Your task to perform on an android device: turn notification dots on Image 0: 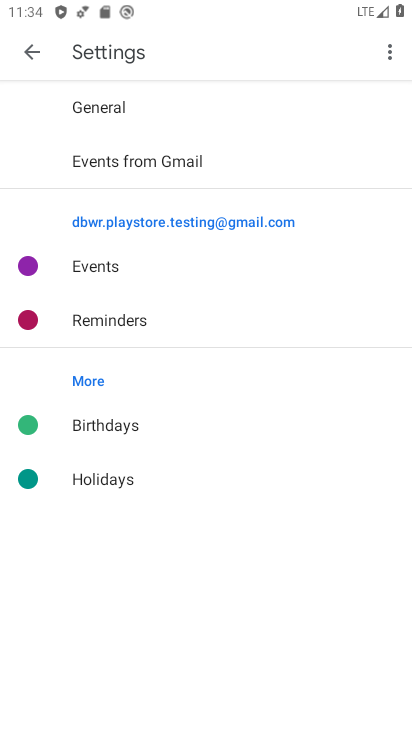
Step 0: press home button
Your task to perform on an android device: turn notification dots on Image 1: 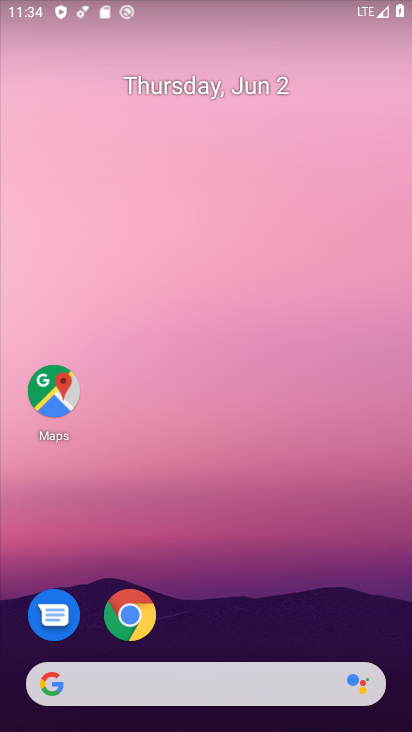
Step 1: drag from (330, 454) to (237, 36)
Your task to perform on an android device: turn notification dots on Image 2: 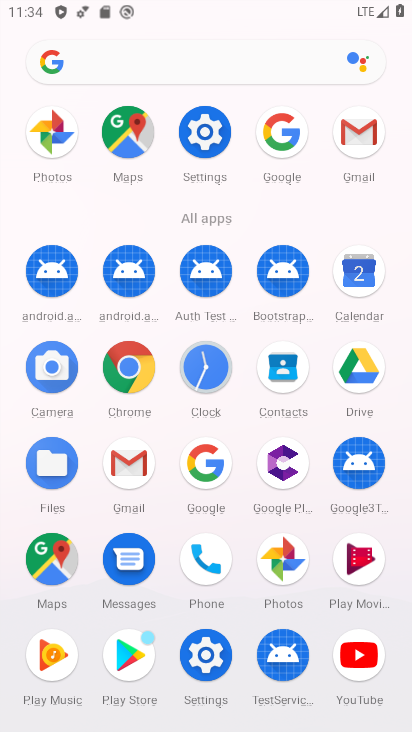
Step 2: click (208, 144)
Your task to perform on an android device: turn notification dots on Image 3: 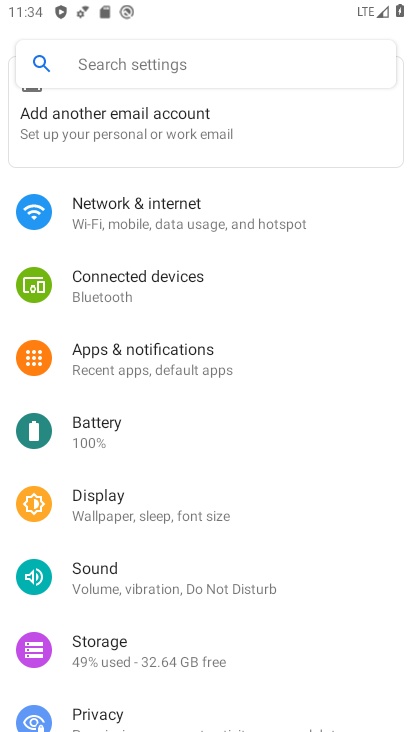
Step 3: click (174, 355)
Your task to perform on an android device: turn notification dots on Image 4: 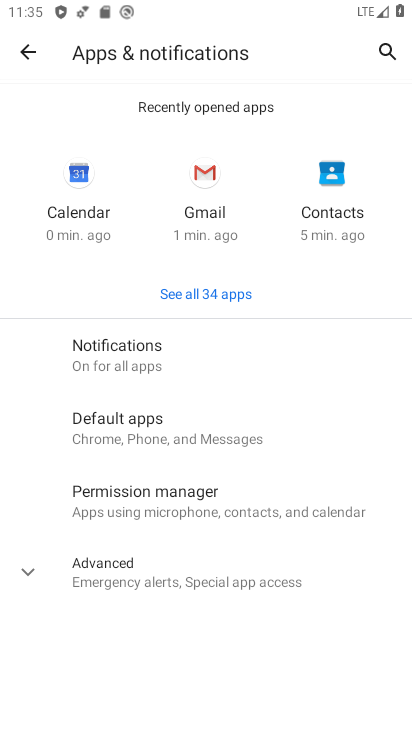
Step 4: click (213, 344)
Your task to perform on an android device: turn notification dots on Image 5: 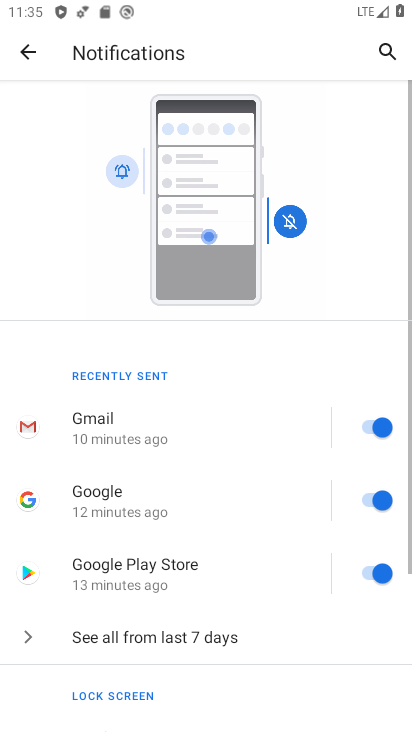
Step 5: drag from (219, 568) to (264, 162)
Your task to perform on an android device: turn notification dots on Image 6: 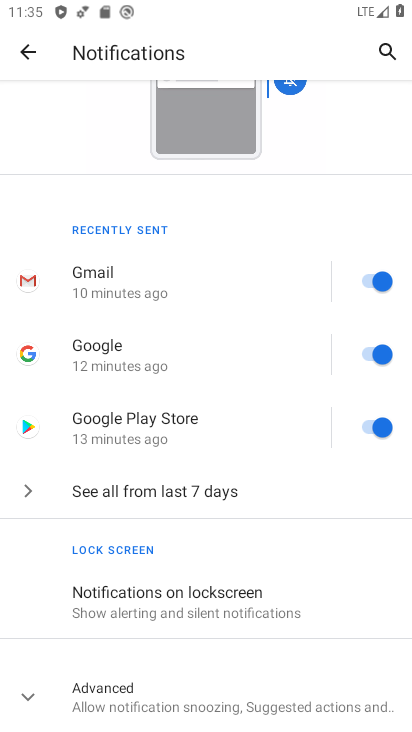
Step 6: drag from (245, 629) to (239, 339)
Your task to perform on an android device: turn notification dots on Image 7: 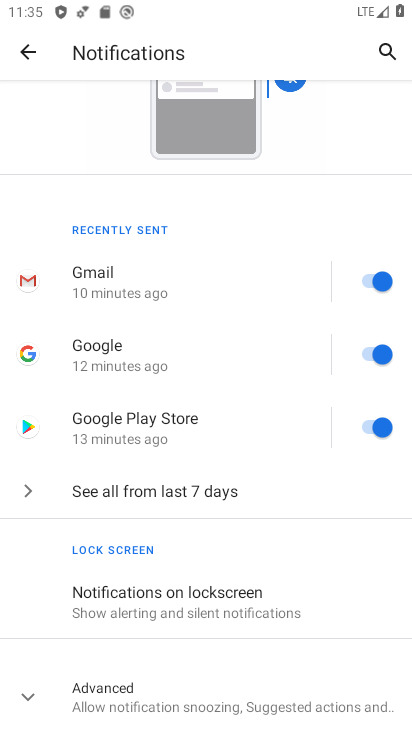
Step 7: click (242, 685)
Your task to perform on an android device: turn notification dots on Image 8: 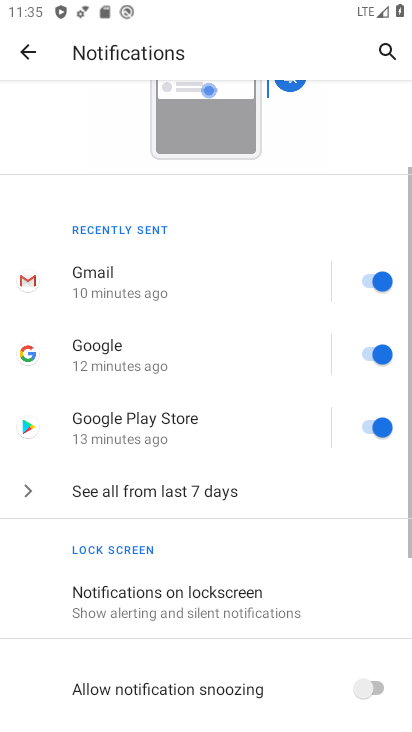
Step 8: task complete